Your task to perform on an android device: Search for "dell alienware" on target.com, select the first entry, and add it to the cart. Image 0: 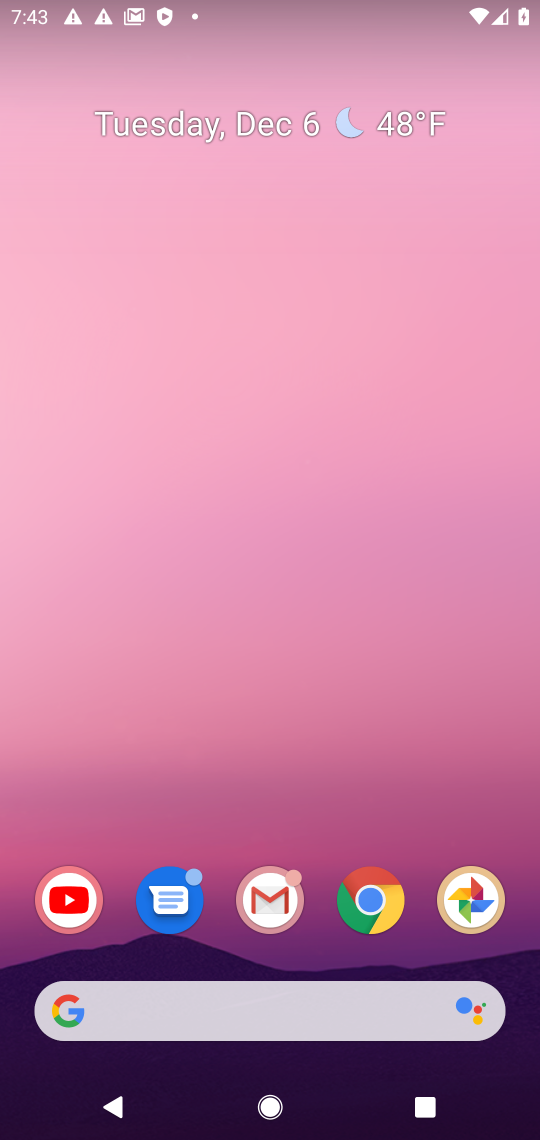
Step 0: drag from (187, 899) to (187, 476)
Your task to perform on an android device: Search for "dell alienware" on target.com, select the first entry, and add it to the cart. Image 1: 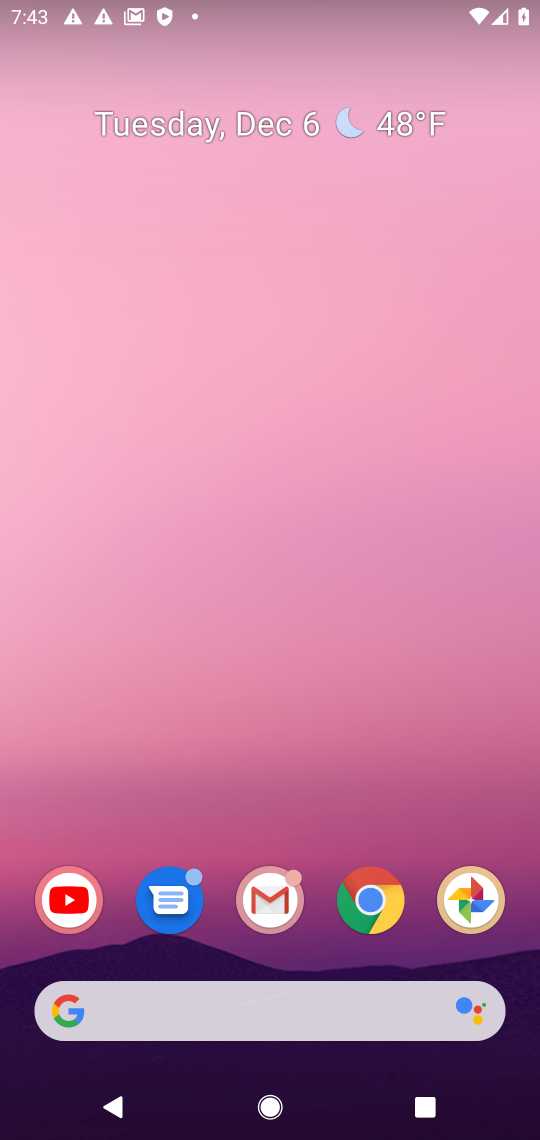
Step 1: drag from (293, 997) to (353, 209)
Your task to perform on an android device: Search for "dell alienware" on target.com, select the first entry, and add it to the cart. Image 2: 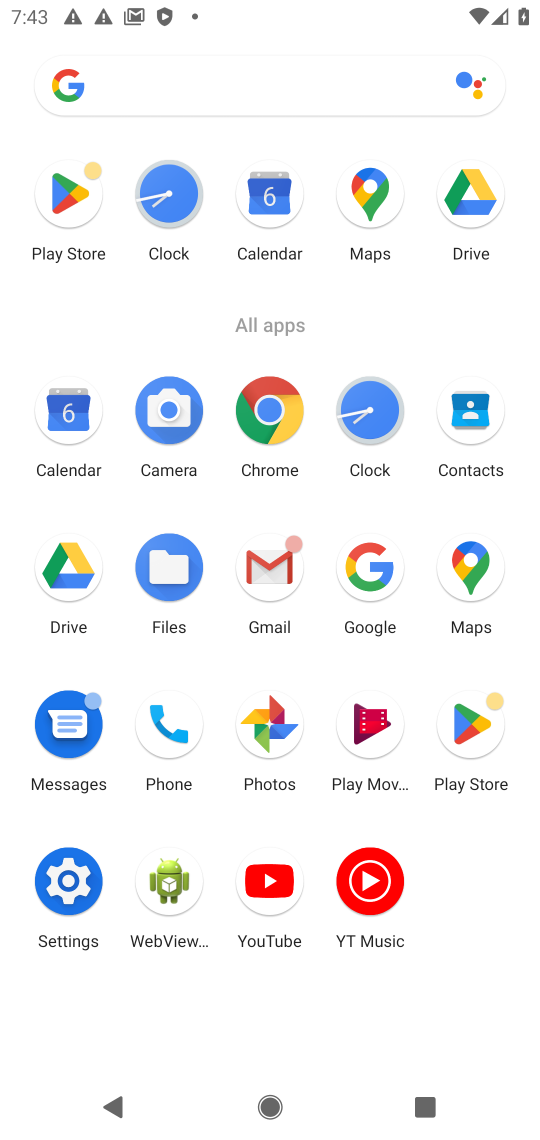
Step 2: click (371, 561)
Your task to perform on an android device: Search for "dell alienware" on target.com, select the first entry, and add it to the cart. Image 3: 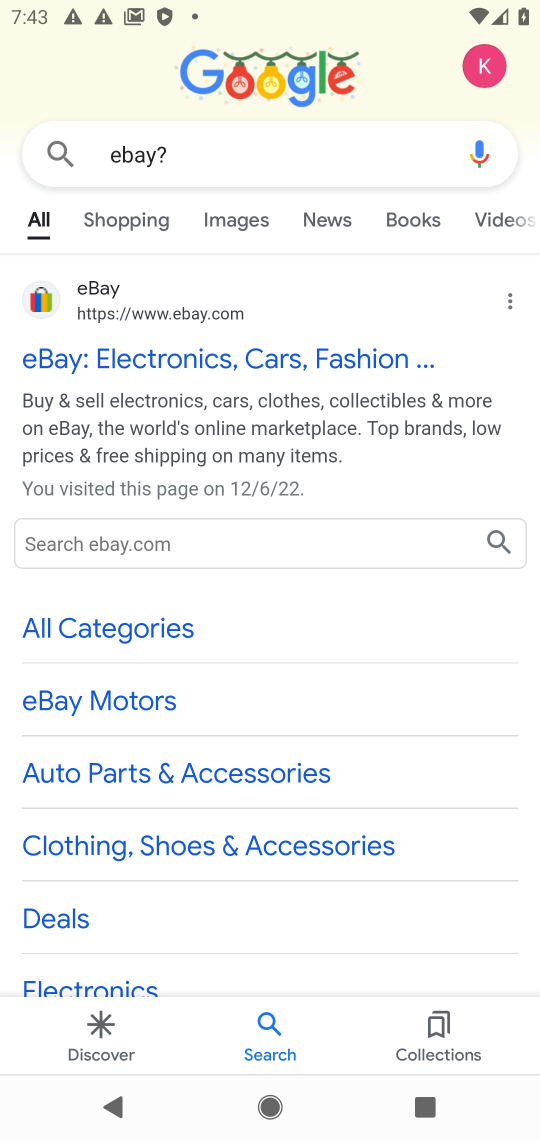
Step 3: click (189, 157)
Your task to perform on an android device: Search for "dell alienware" on target.com, select the first entry, and add it to the cart. Image 4: 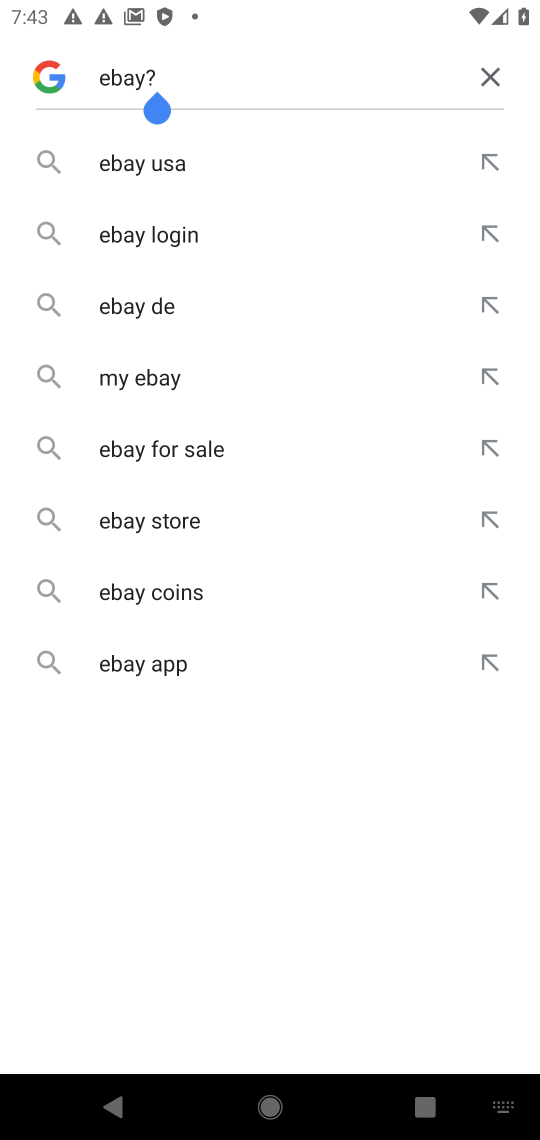
Step 4: click (483, 82)
Your task to perform on an android device: Search for "dell alienware" on target.com, select the first entry, and add it to the cart. Image 5: 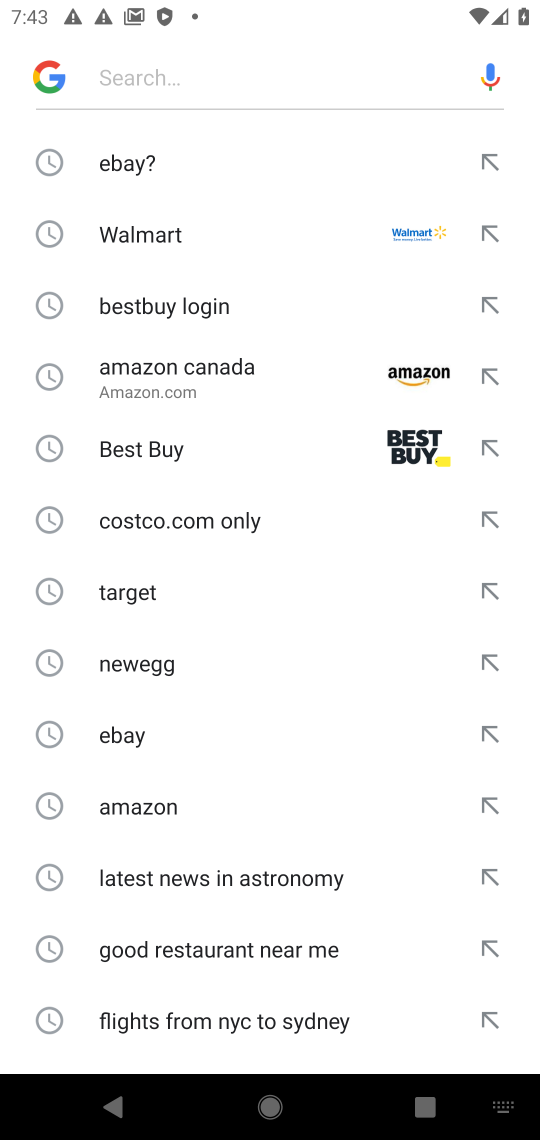
Step 5: click (488, 595)
Your task to perform on an android device: Search for "dell alienware" on target.com, select the first entry, and add it to the cart. Image 6: 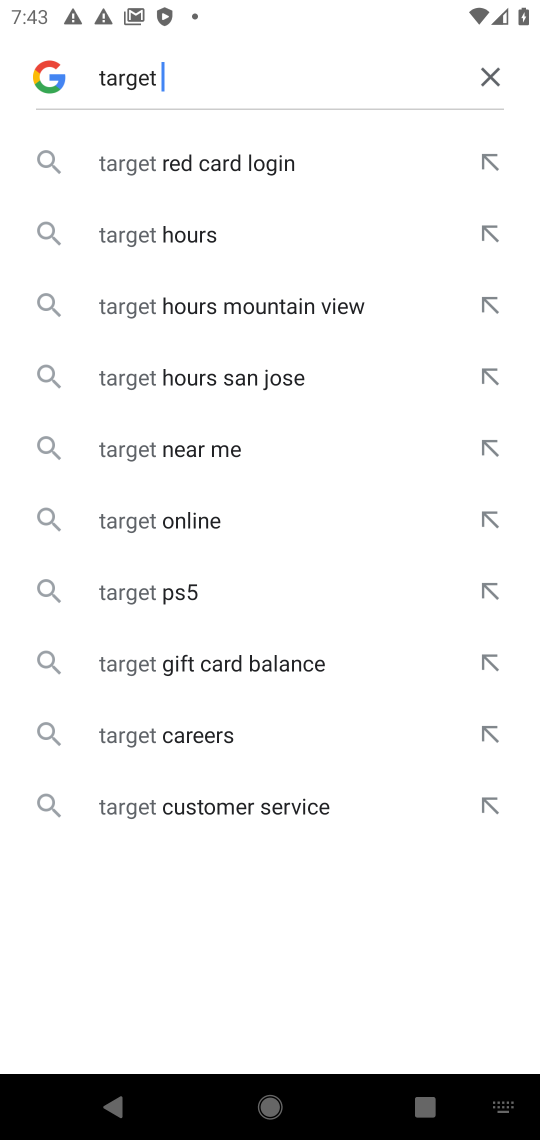
Step 6: click (163, 524)
Your task to perform on an android device: Search for "dell alienware" on target.com, select the first entry, and add it to the cart. Image 7: 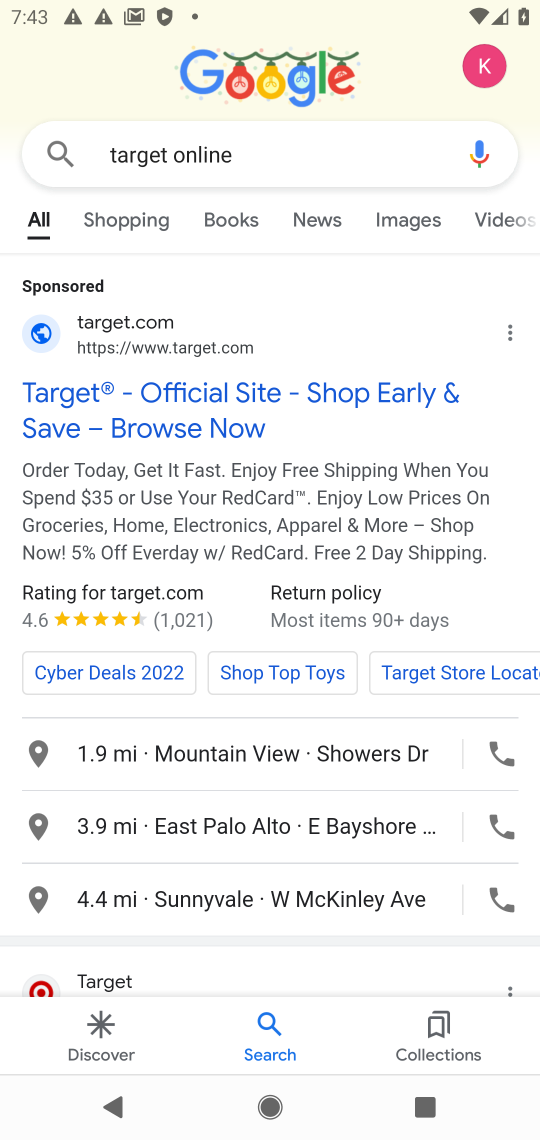
Step 7: click (178, 398)
Your task to perform on an android device: Search for "dell alienware" on target.com, select the first entry, and add it to the cart. Image 8: 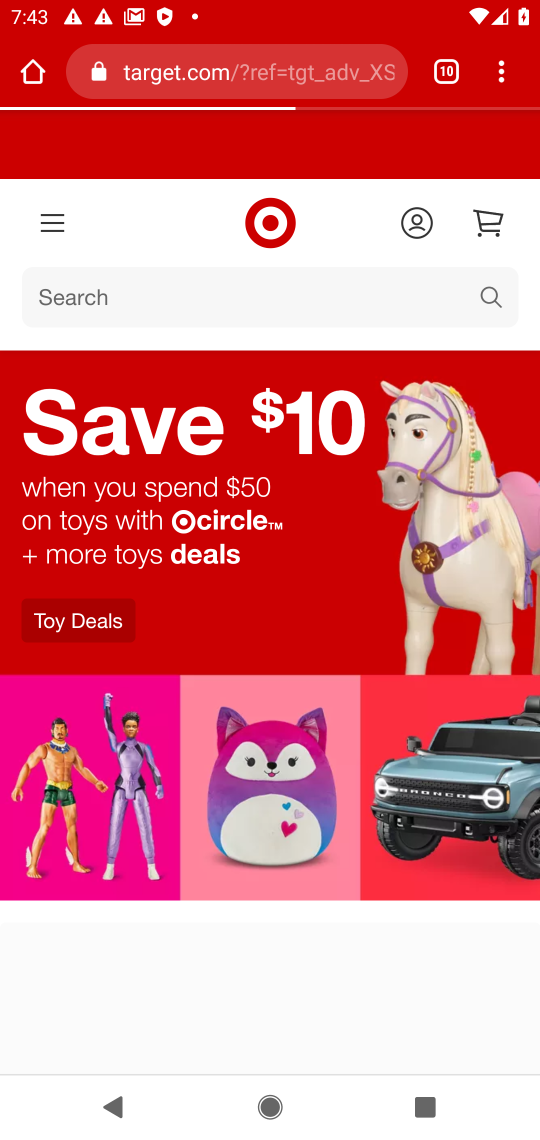
Step 8: click (127, 306)
Your task to perform on an android device: Search for "dell alienware" on target.com, select the first entry, and add it to the cart. Image 9: 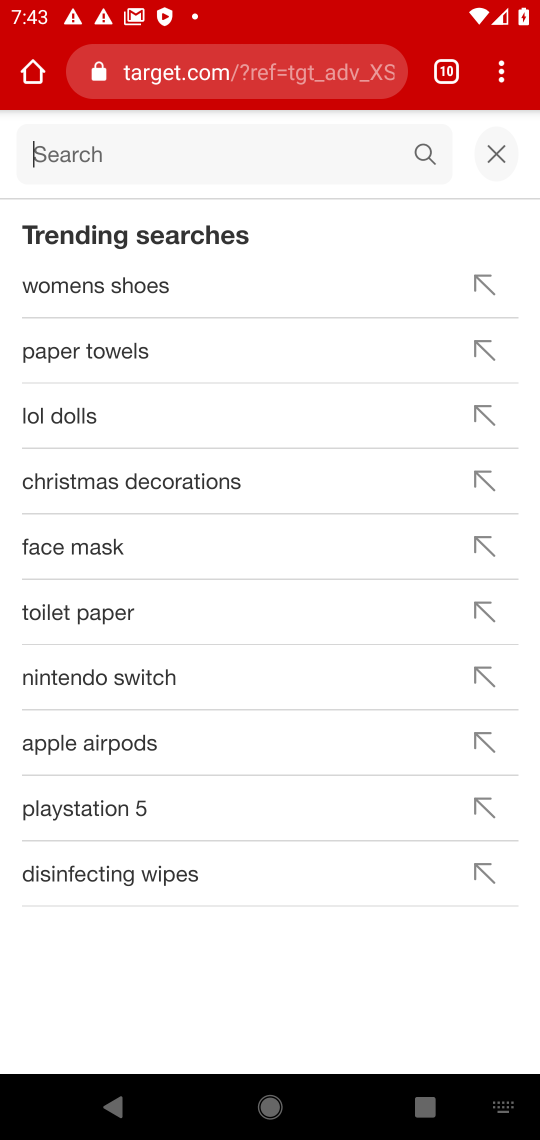
Step 9: click (143, 153)
Your task to perform on an android device: Search for "dell alienware" on target.com, select the first entry, and add it to the cart. Image 10: 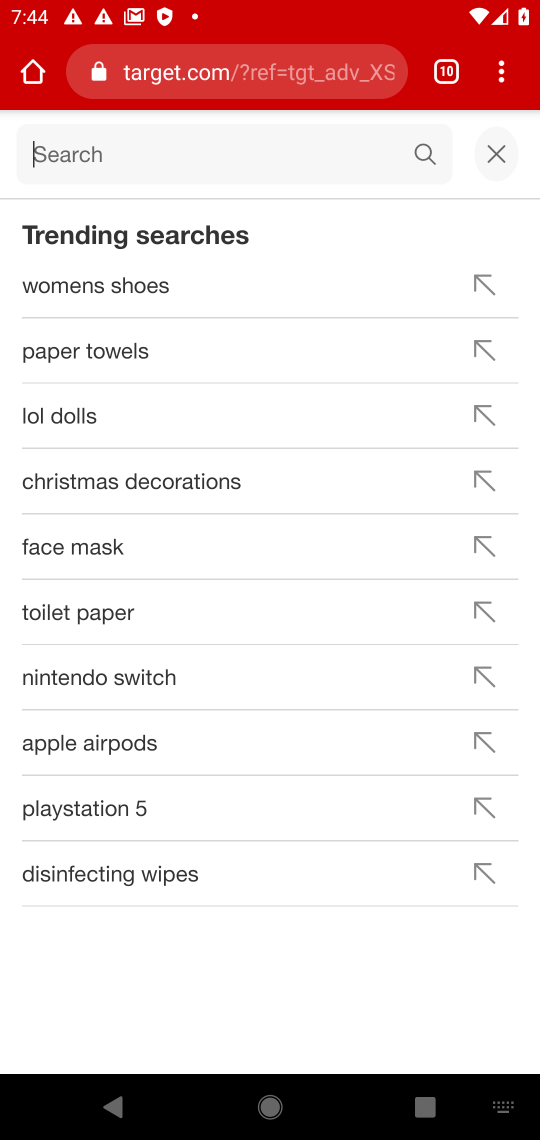
Step 10: type "dell alienware"
Your task to perform on an android device: Search for "dell alienware" on target.com, select the first entry, and add it to the cart. Image 11: 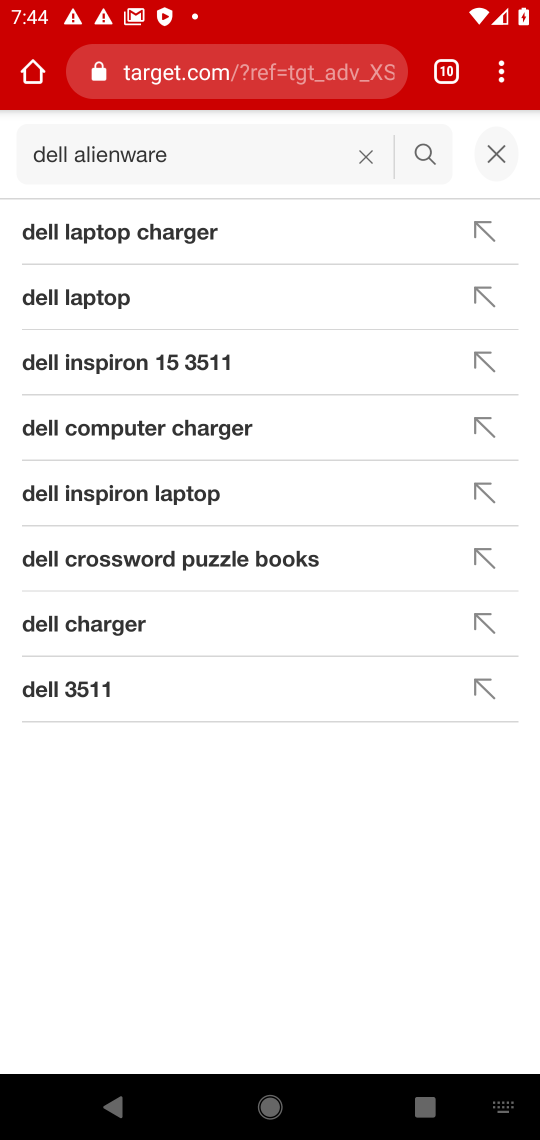
Step 11: click (435, 152)
Your task to perform on an android device: Search for "dell alienware" on target.com, select the first entry, and add it to the cart. Image 12: 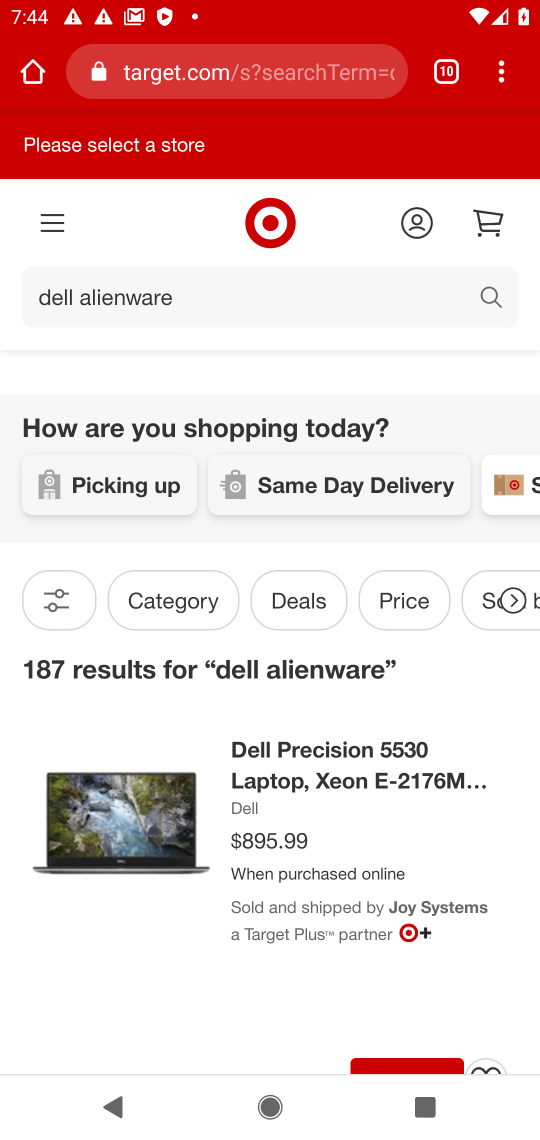
Step 12: drag from (290, 915) to (291, 304)
Your task to perform on an android device: Search for "dell alienware" on target.com, select the first entry, and add it to the cart. Image 13: 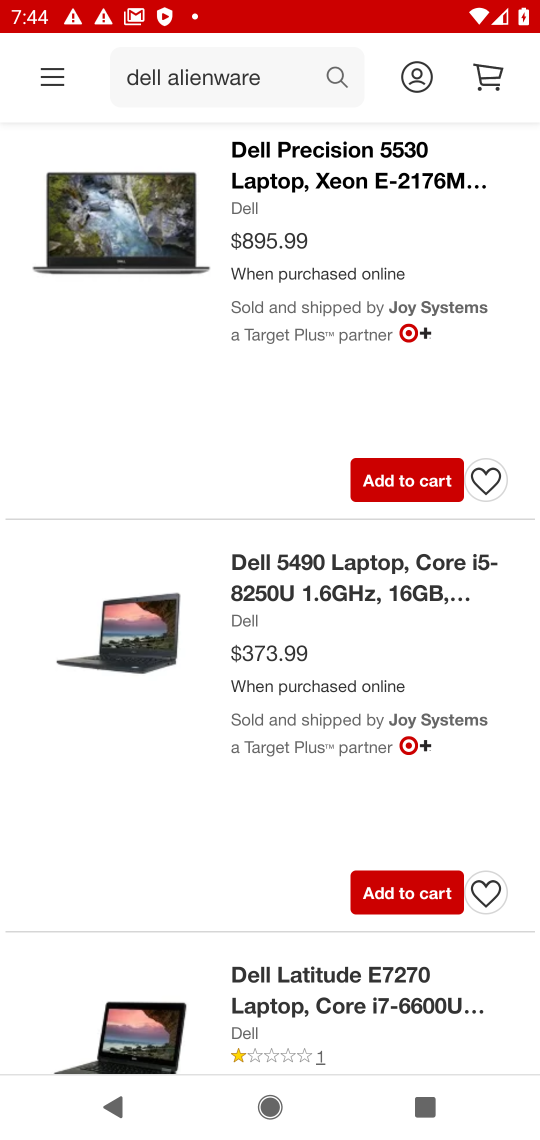
Step 13: click (388, 481)
Your task to perform on an android device: Search for "dell alienware" on target.com, select the first entry, and add it to the cart. Image 14: 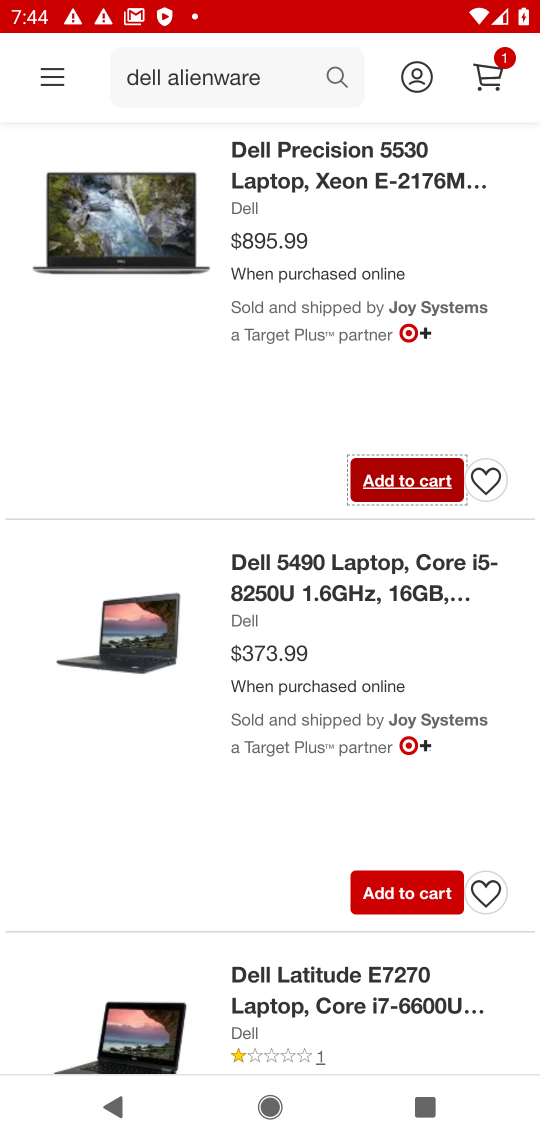
Step 14: task complete